Your task to perform on an android device: When is my next appointment? Image 0: 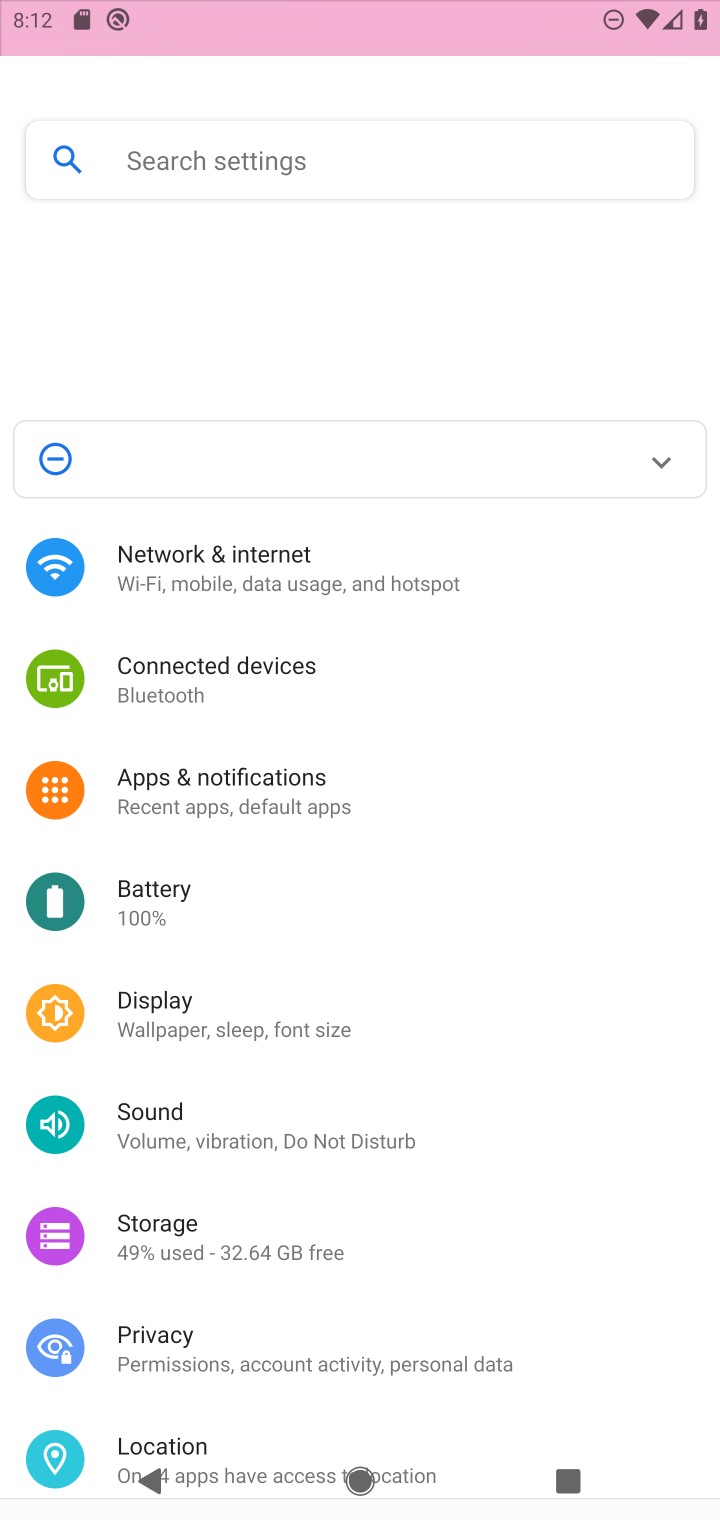
Step 0: press home button
Your task to perform on an android device: When is my next appointment? Image 1: 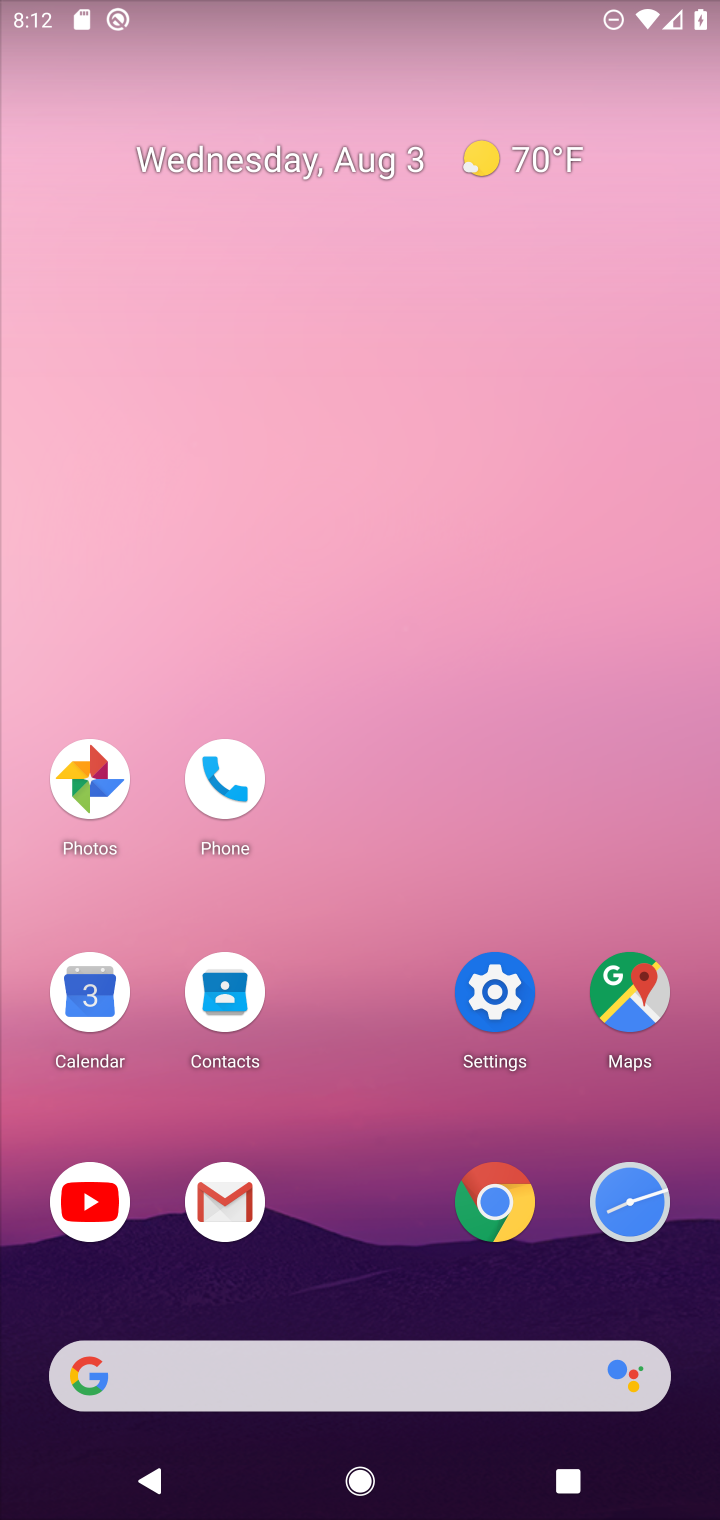
Step 1: click (79, 996)
Your task to perform on an android device: When is my next appointment? Image 2: 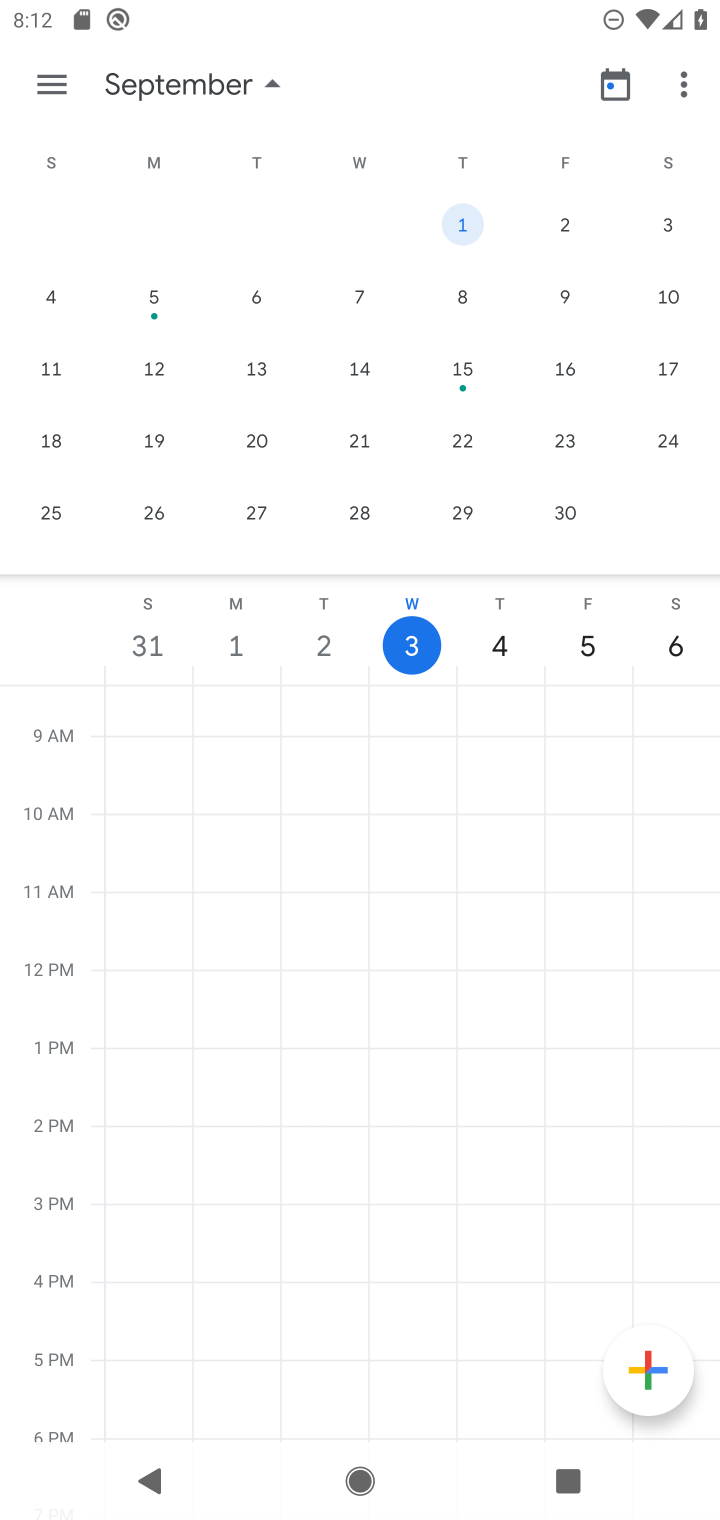
Step 2: click (415, 650)
Your task to perform on an android device: When is my next appointment? Image 3: 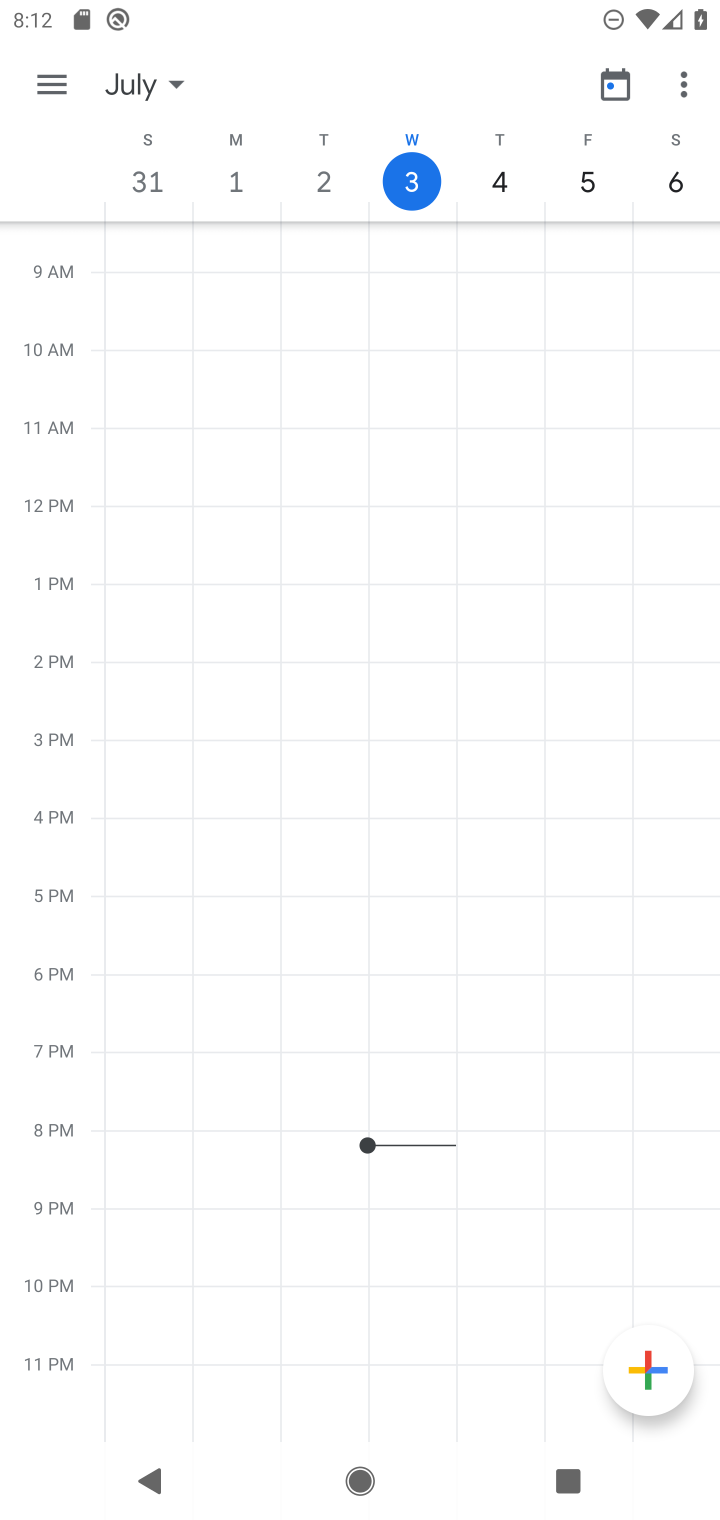
Step 3: click (414, 189)
Your task to perform on an android device: When is my next appointment? Image 4: 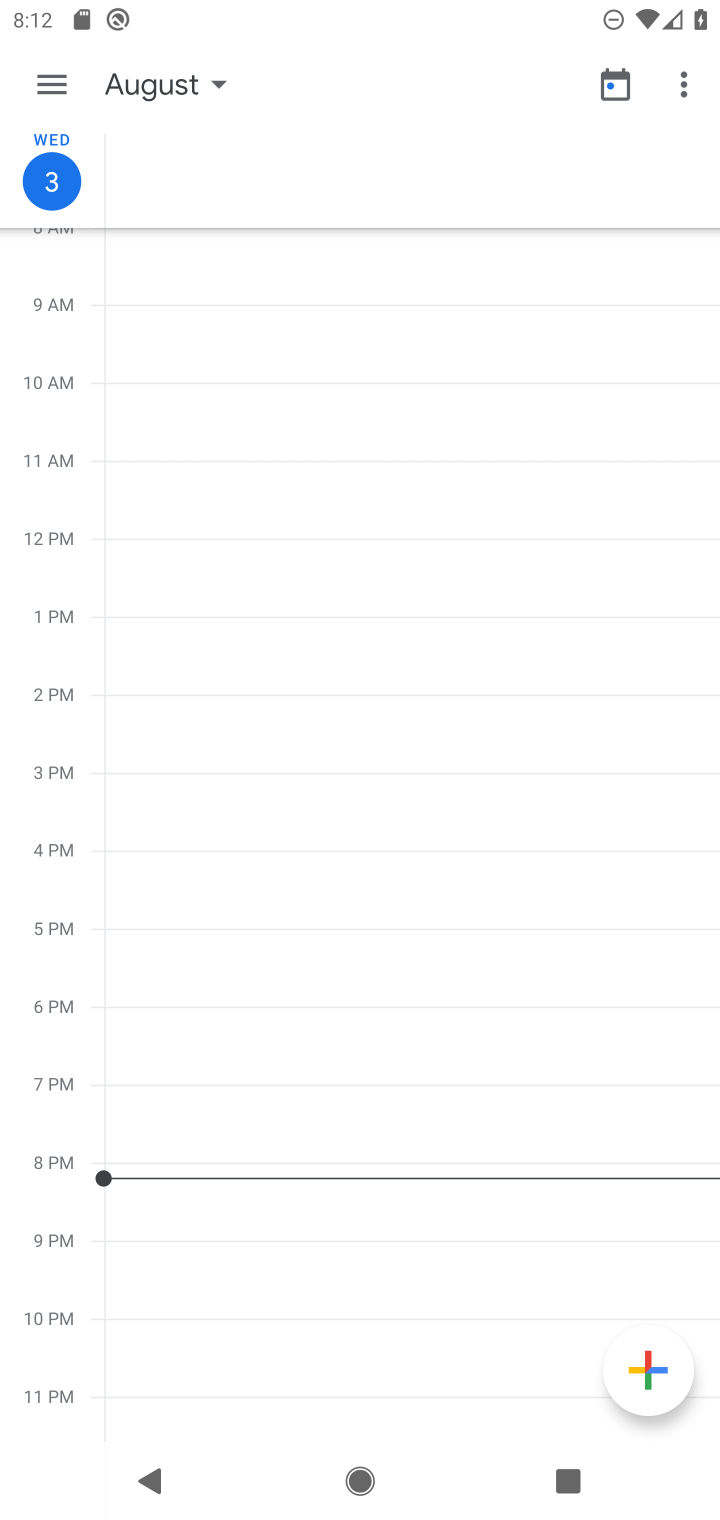
Step 4: task complete